Your task to perform on an android device: turn off notifications in google photos Image 0: 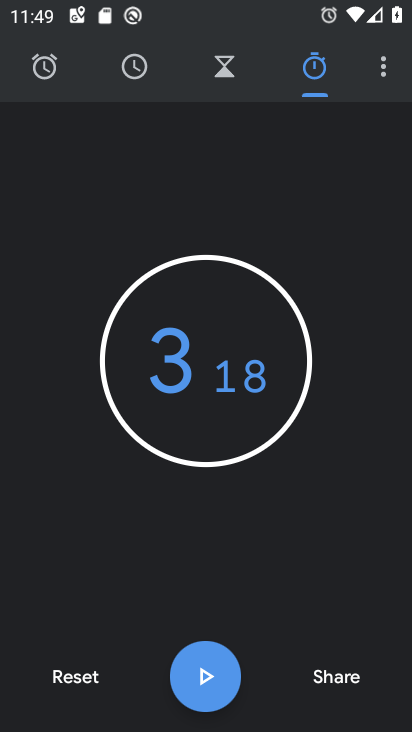
Step 0: press home button
Your task to perform on an android device: turn off notifications in google photos Image 1: 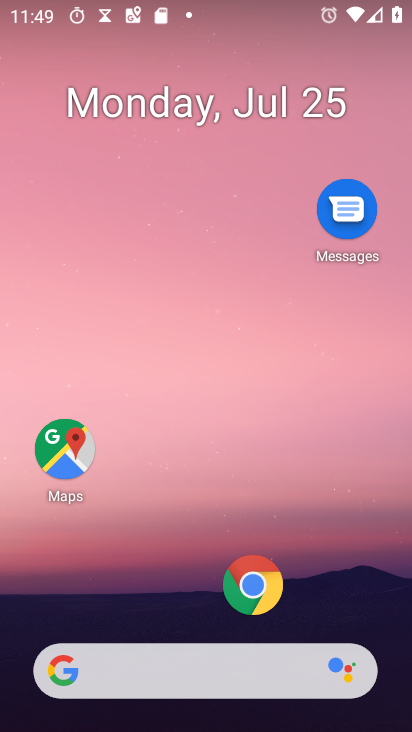
Step 1: drag from (193, 686) to (326, 130)
Your task to perform on an android device: turn off notifications in google photos Image 2: 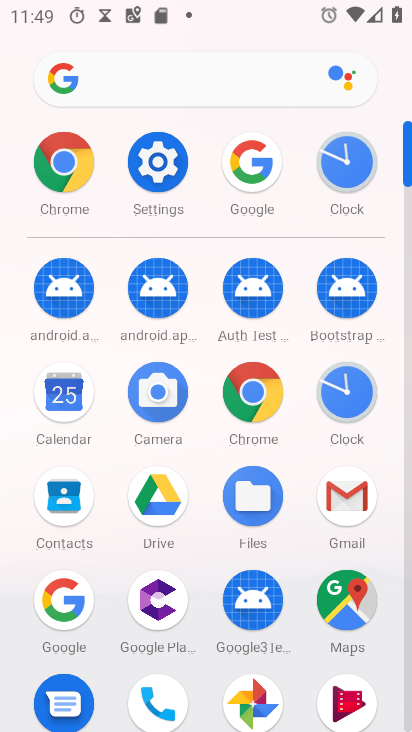
Step 2: drag from (210, 642) to (309, 198)
Your task to perform on an android device: turn off notifications in google photos Image 3: 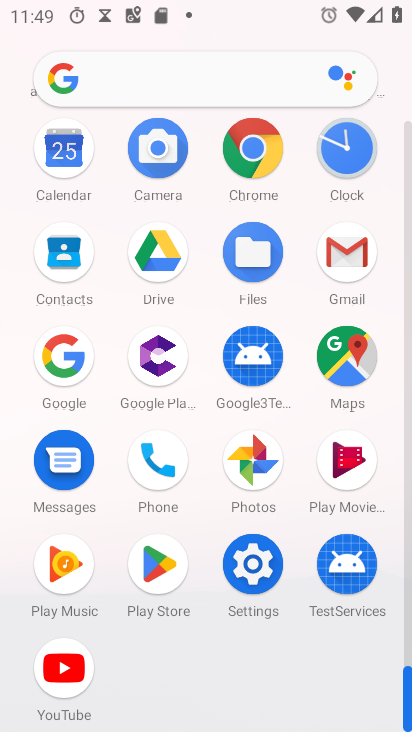
Step 3: click (253, 462)
Your task to perform on an android device: turn off notifications in google photos Image 4: 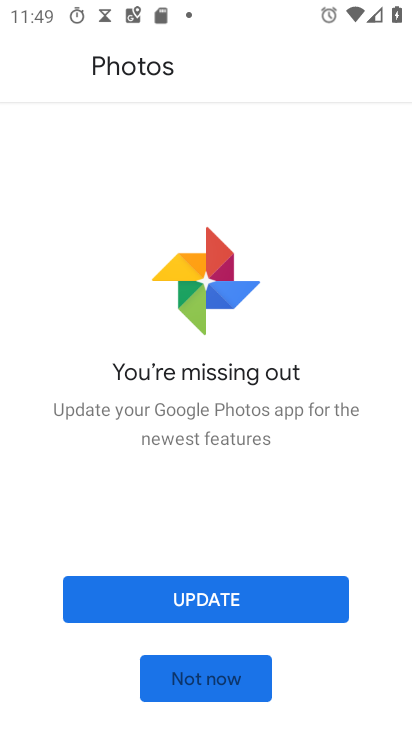
Step 4: click (192, 668)
Your task to perform on an android device: turn off notifications in google photos Image 5: 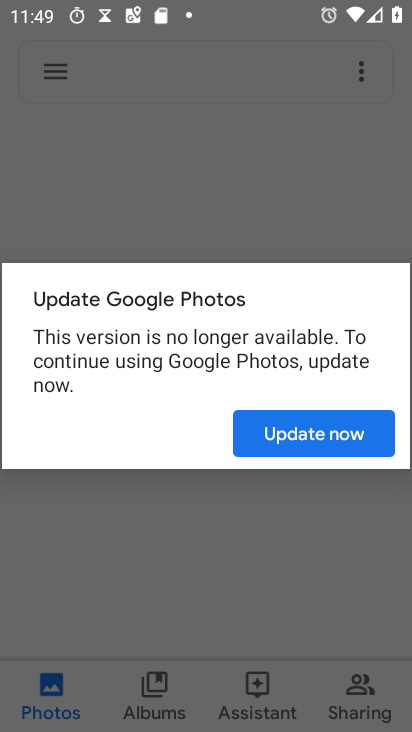
Step 5: click (326, 434)
Your task to perform on an android device: turn off notifications in google photos Image 6: 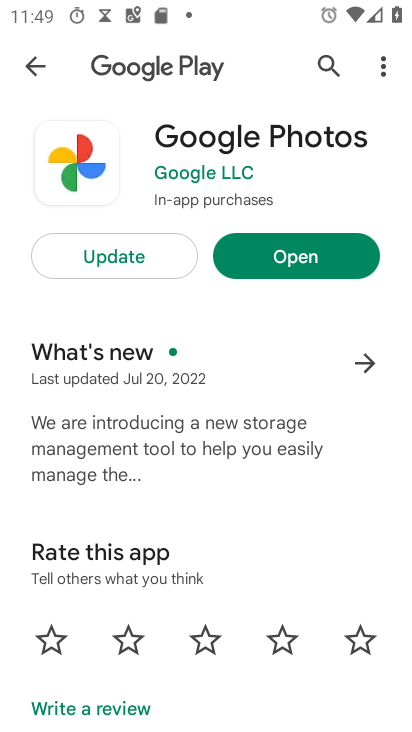
Step 6: click (139, 256)
Your task to perform on an android device: turn off notifications in google photos Image 7: 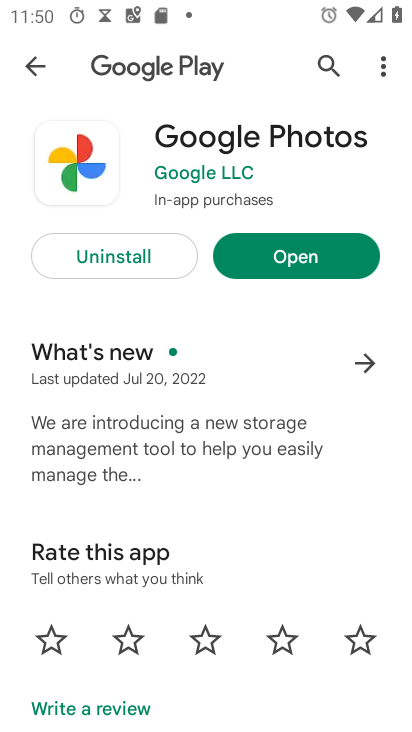
Step 7: click (292, 253)
Your task to perform on an android device: turn off notifications in google photos Image 8: 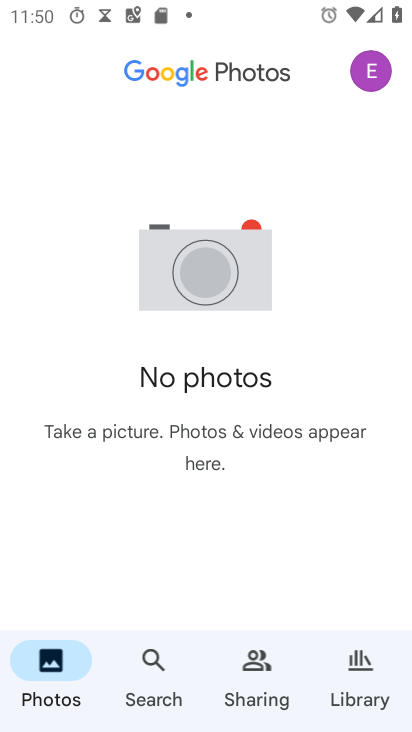
Step 8: click (373, 71)
Your task to perform on an android device: turn off notifications in google photos Image 9: 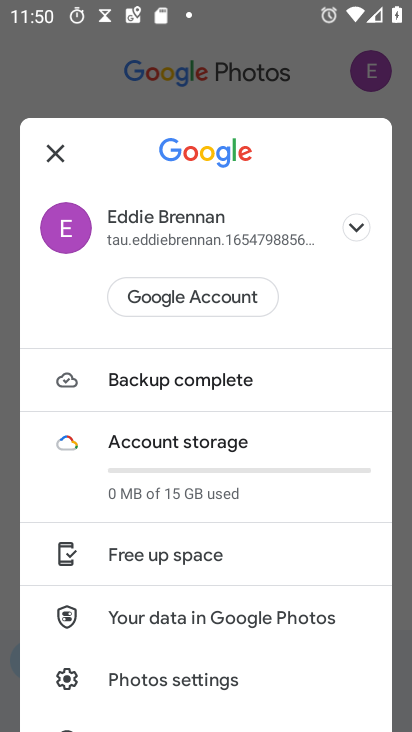
Step 9: drag from (192, 656) to (334, 241)
Your task to perform on an android device: turn off notifications in google photos Image 10: 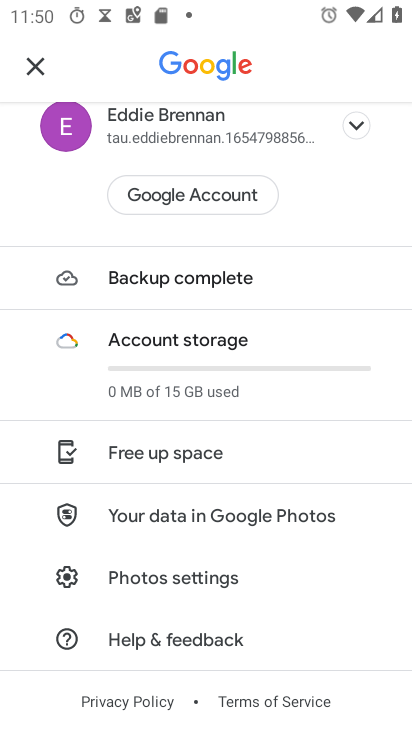
Step 10: click (194, 575)
Your task to perform on an android device: turn off notifications in google photos Image 11: 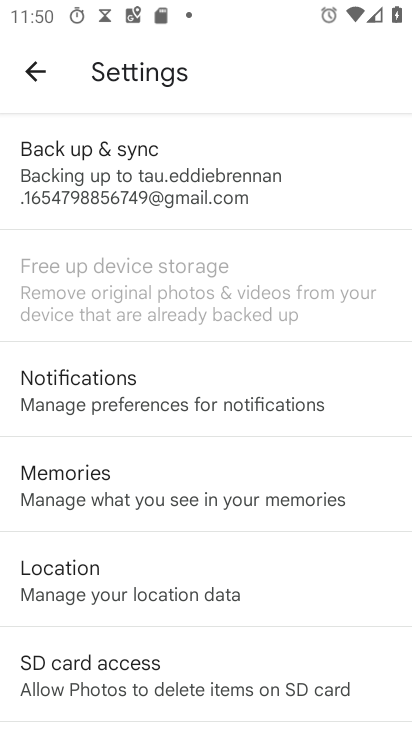
Step 11: click (162, 400)
Your task to perform on an android device: turn off notifications in google photos Image 12: 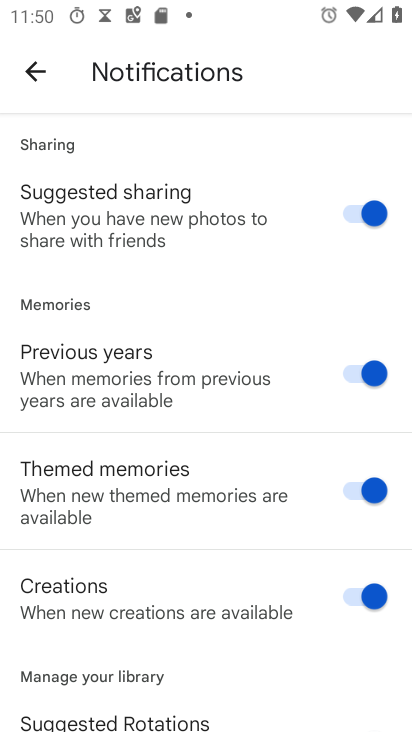
Step 12: drag from (155, 641) to (270, 285)
Your task to perform on an android device: turn off notifications in google photos Image 13: 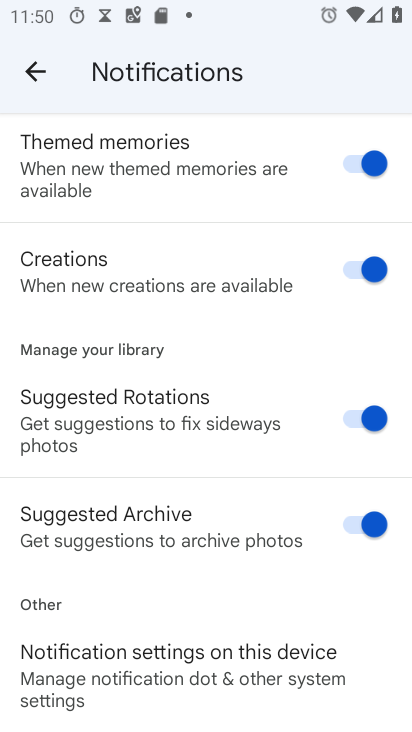
Step 13: drag from (160, 624) to (260, 282)
Your task to perform on an android device: turn off notifications in google photos Image 14: 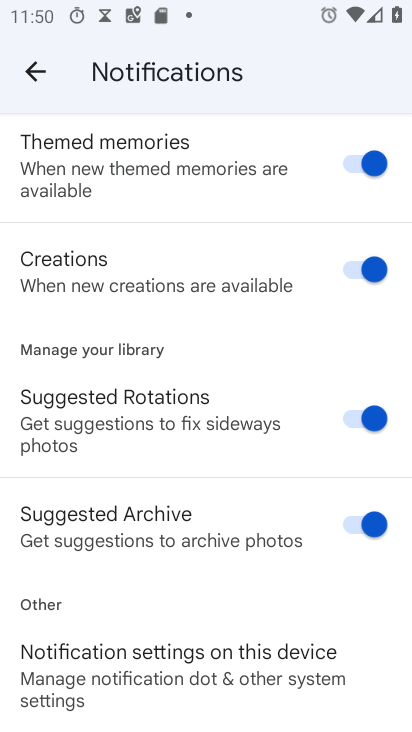
Step 14: click (125, 669)
Your task to perform on an android device: turn off notifications in google photos Image 15: 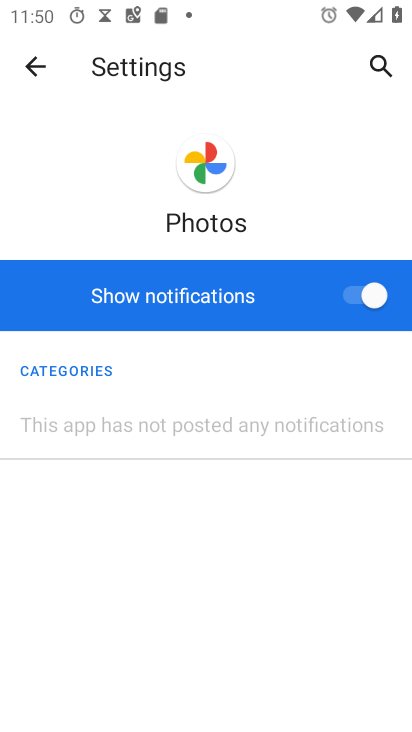
Step 15: click (358, 300)
Your task to perform on an android device: turn off notifications in google photos Image 16: 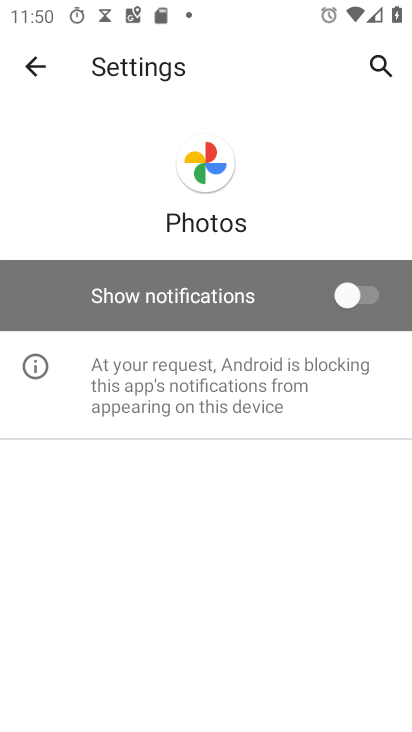
Step 16: task complete